Your task to perform on an android device: Search for Mexican restaurants on Maps Image 0: 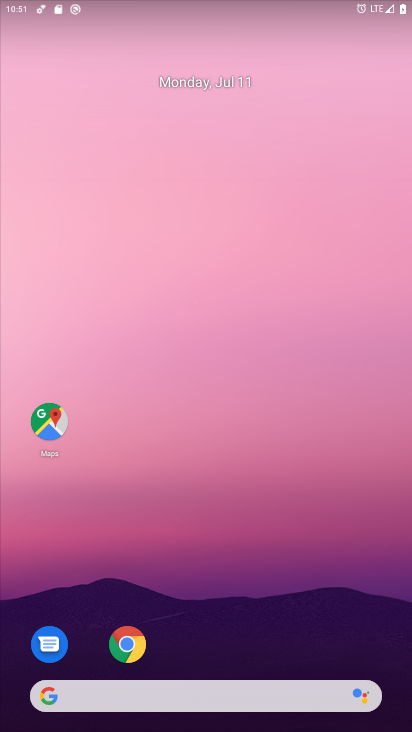
Step 0: click (285, 166)
Your task to perform on an android device: Search for Mexican restaurants on Maps Image 1: 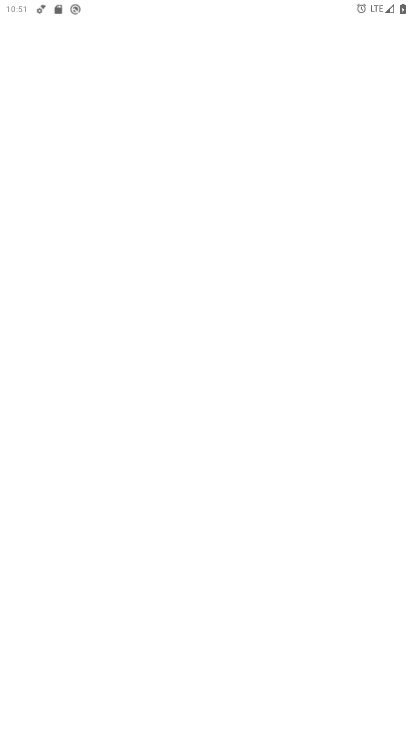
Step 1: press home button
Your task to perform on an android device: Search for Mexican restaurants on Maps Image 2: 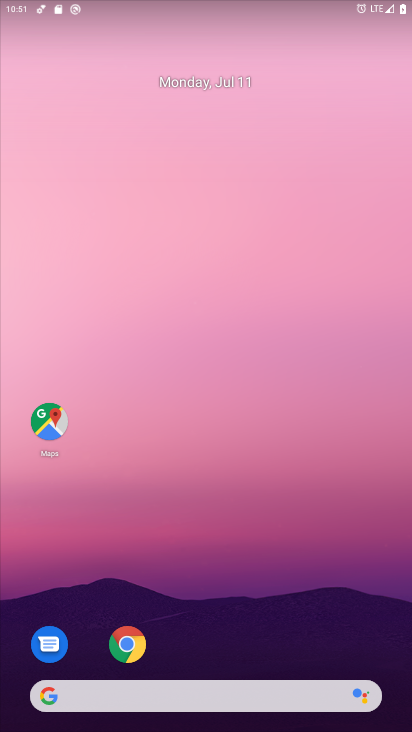
Step 2: click (32, 421)
Your task to perform on an android device: Search for Mexican restaurants on Maps Image 3: 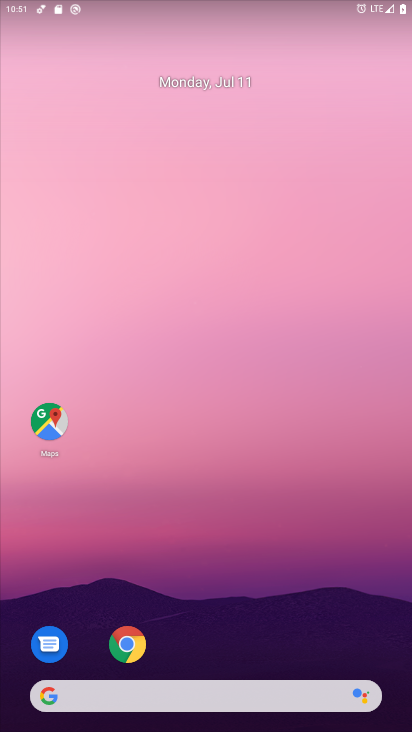
Step 3: click (56, 417)
Your task to perform on an android device: Search for Mexican restaurants on Maps Image 4: 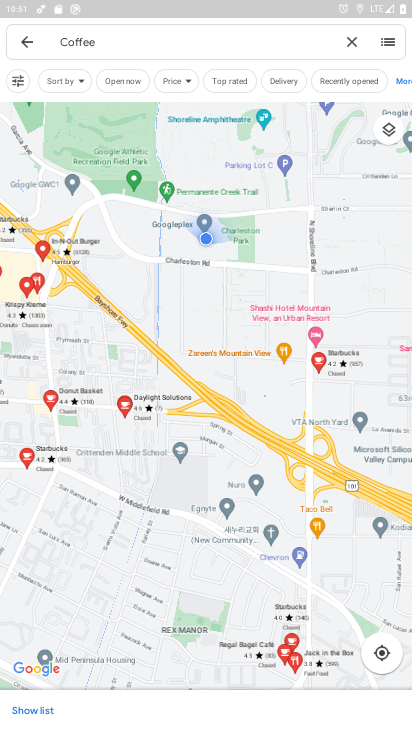
Step 4: click (358, 40)
Your task to perform on an android device: Search for Mexican restaurants on Maps Image 5: 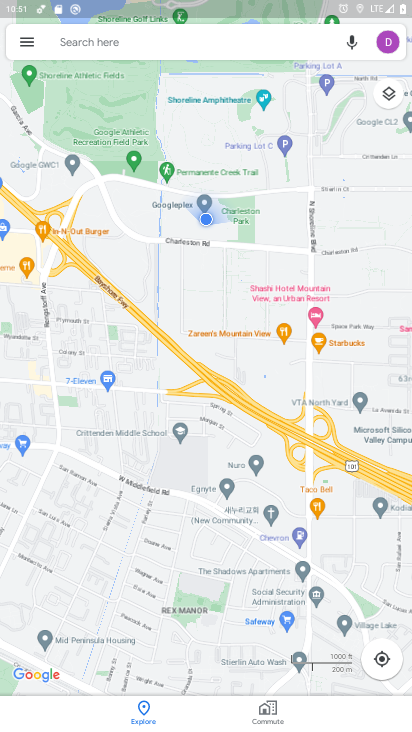
Step 5: click (191, 37)
Your task to perform on an android device: Search for Mexican restaurants on Maps Image 6: 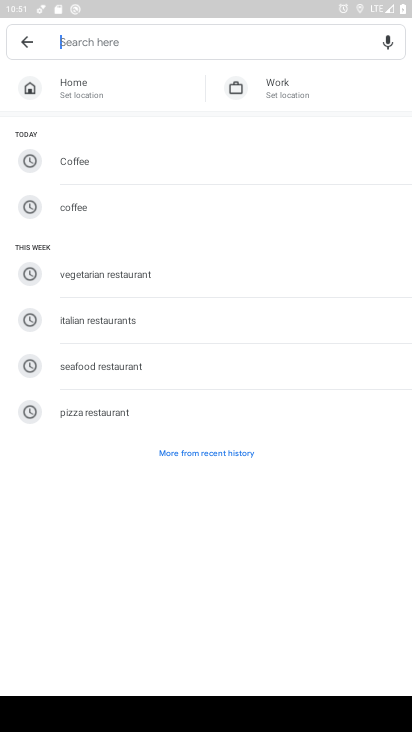
Step 6: click (164, 31)
Your task to perform on an android device: Search for Mexican restaurants on Maps Image 7: 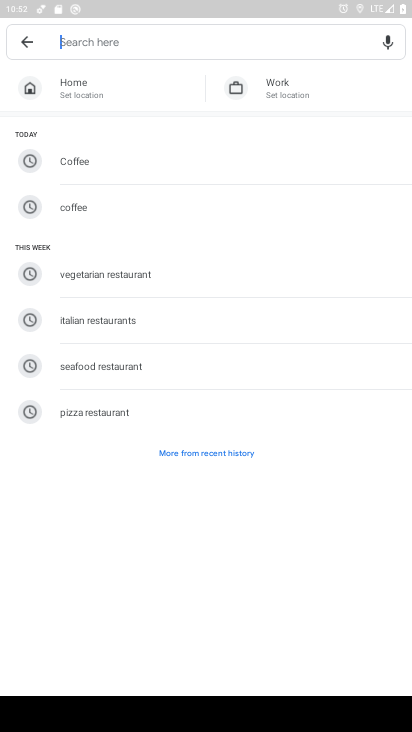
Step 7: type " Mexican restaurants  "
Your task to perform on an android device: Search for Mexican restaurants on Maps Image 8: 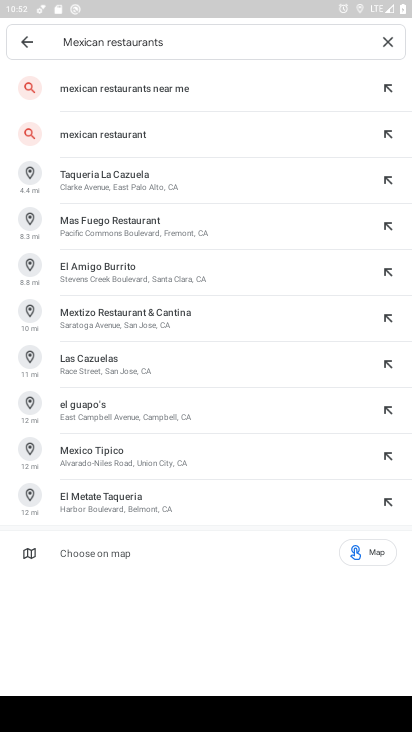
Step 8: click (134, 126)
Your task to perform on an android device: Search for Mexican restaurants on Maps Image 9: 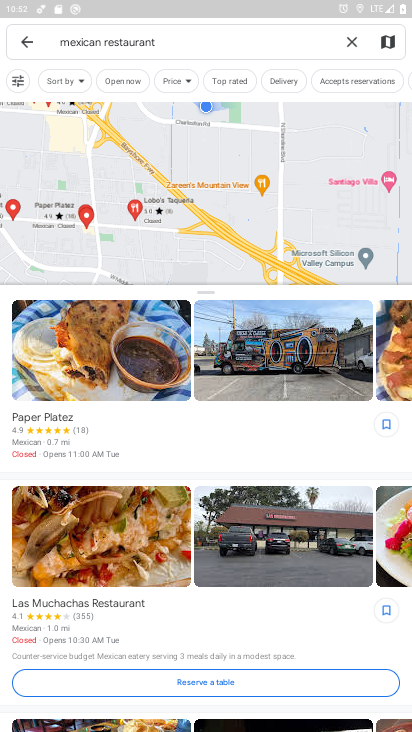
Step 9: task complete